Your task to perform on an android device: toggle data saver in the chrome app Image 0: 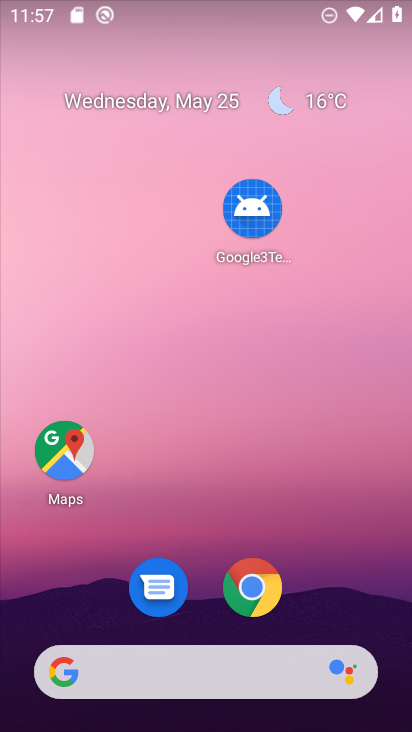
Step 0: click (245, 616)
Your task to perform on an android device: toggle data saver in the chrome app Image 1: 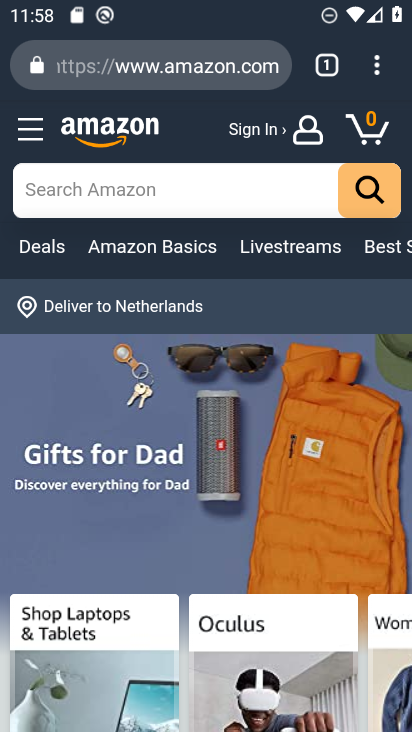
Step 1: drag from (379, 76) to (190, 631)
Your task to perform on an android device: toggle data saver in the chrome app Image 2: 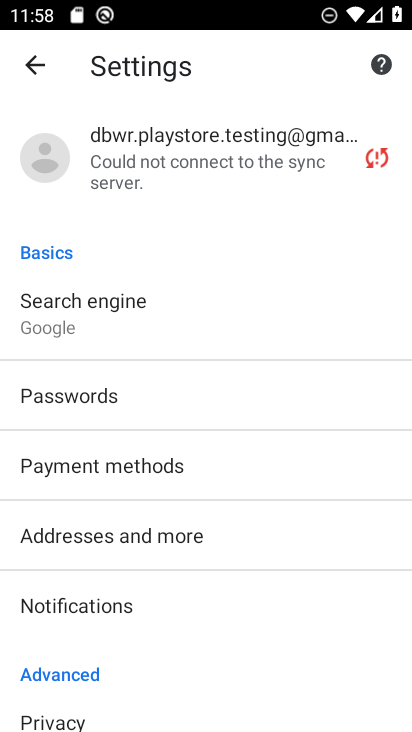
Step 2: drag from (190, 631) to (170, 223)
Your task to perform on an android device: toggle data saver in the chrome app Image 3: 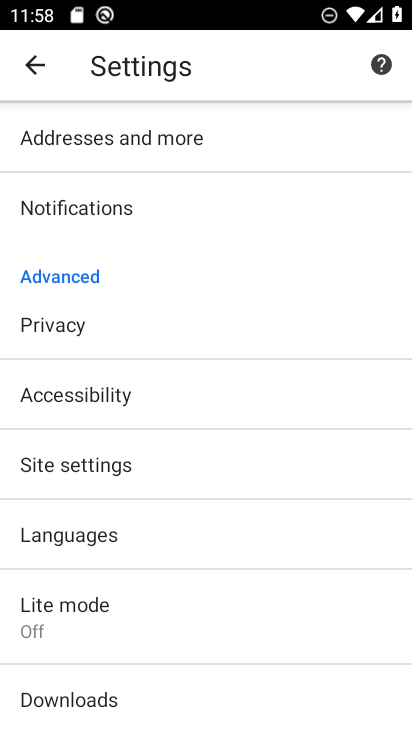
Step 3: click (74, 604)
Your task to perform on an android device: toggle data saver in the chrome app Image 4: 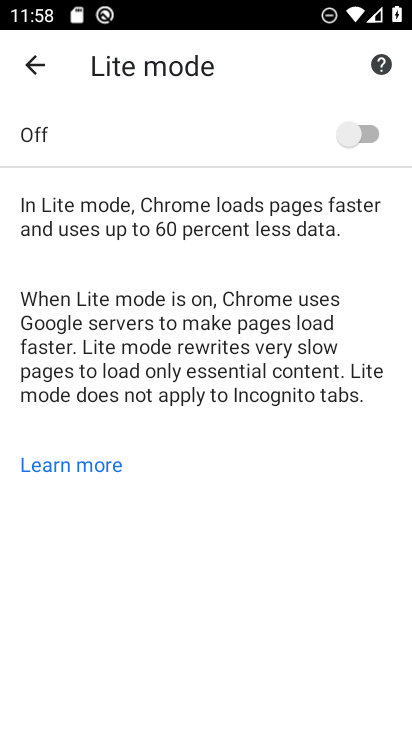
Step 4: click (373, 128)
Your task to perform on an android device: toggle data saver in the chrome app Image 5: 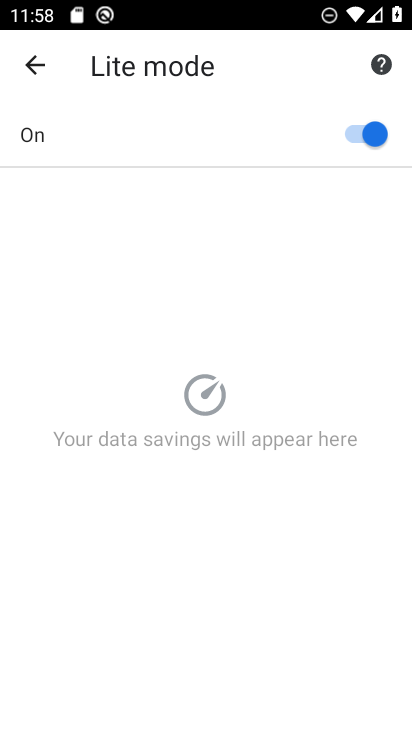
Step 5: task complete